Your task to perform on an android device: show emergency info Image 0: 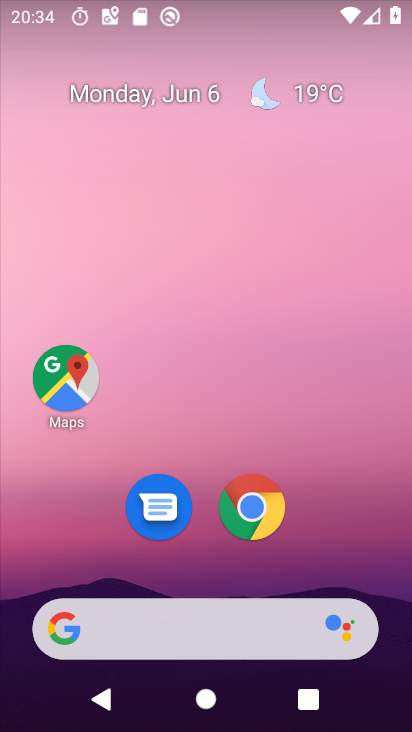
Step 0: press home button
Your task to perform on an android device: show emergency info Image 1: 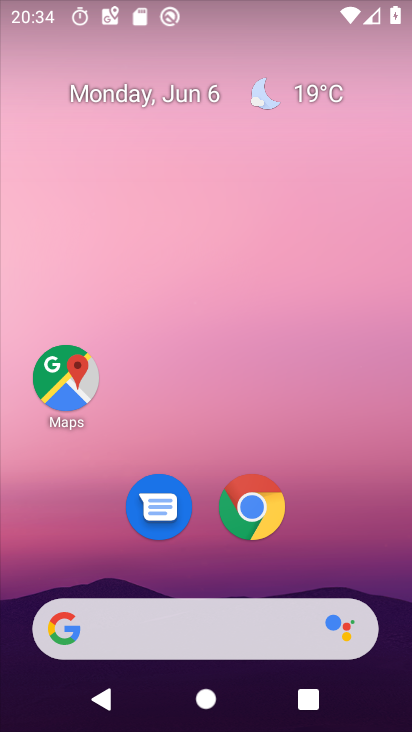
Step 1: drag from (386, 567) to (134, 26)
Your task to perform on an android device: show emergency info Image 2: 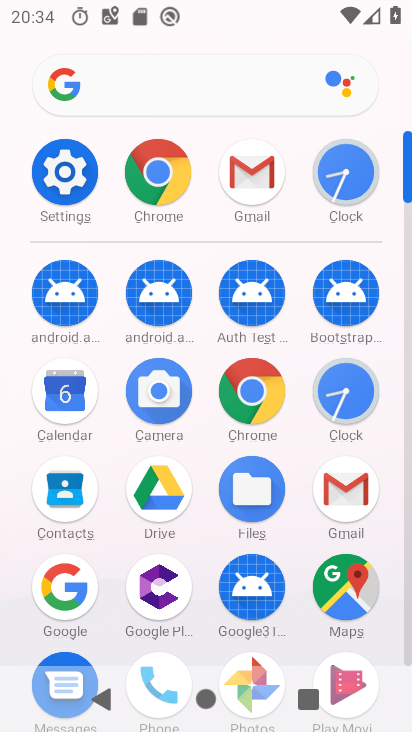
Step 2: click (80, 158)
Your task to perform on an android device: show emergency info Image 3: 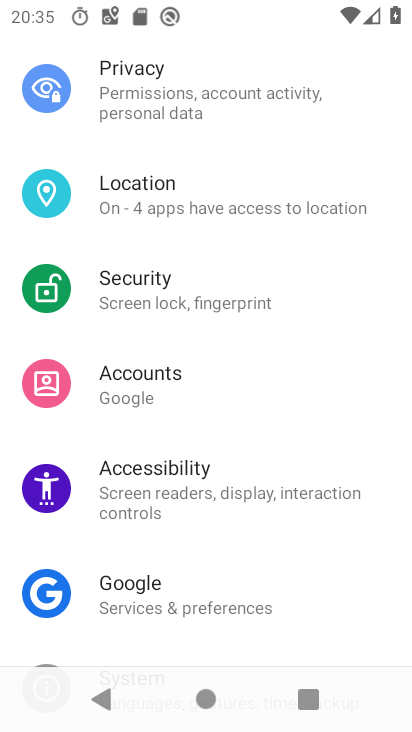
Step 3: drag from (164, 613) to (218, 128)
Your task to perform on an android device: show emergency info Image 4: 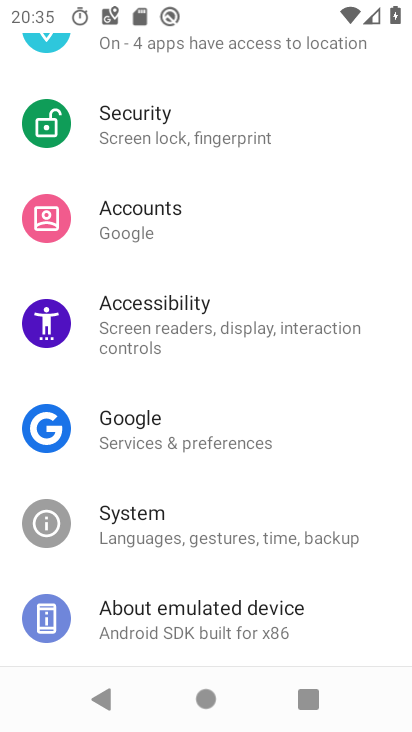
Step 4: click (228, 613)
Your task to perform on an android device: show emergency info Image 5: 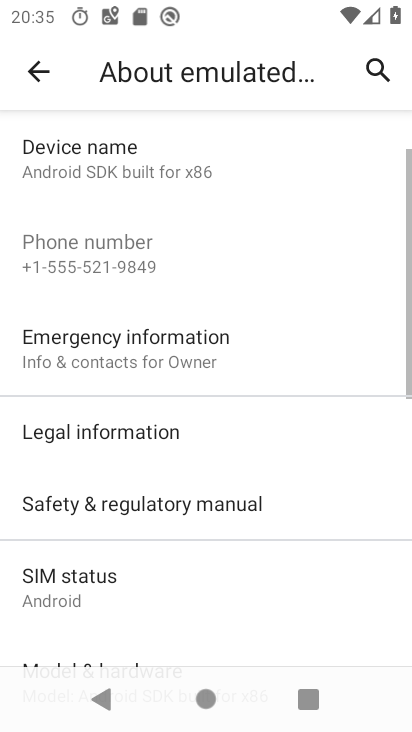
Step 5: click (175, 344)
Your task to perform on an android device: show emergency info Image 6: 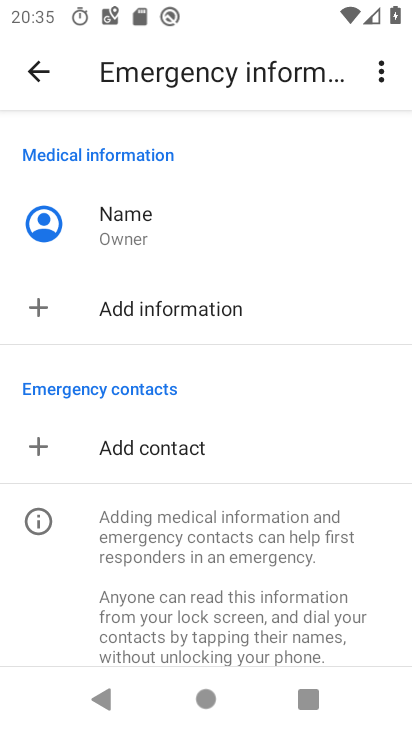
Step 6: task complete